Your task to perform on an android device: Go to wifi settings Image 0: 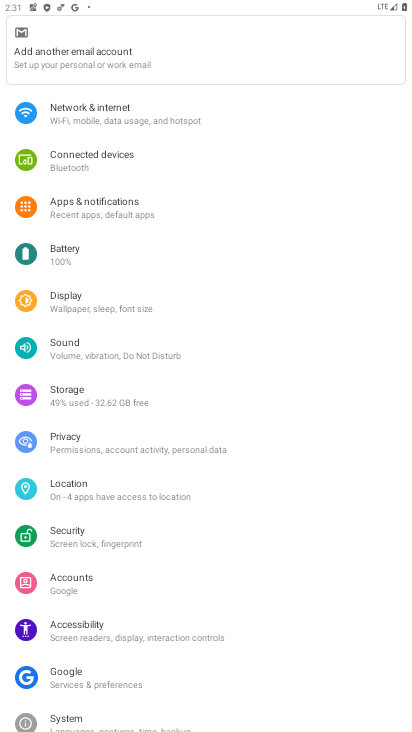
Step 0: press home button
Your task to perform on an android device: Go to wifi settings Image 1: 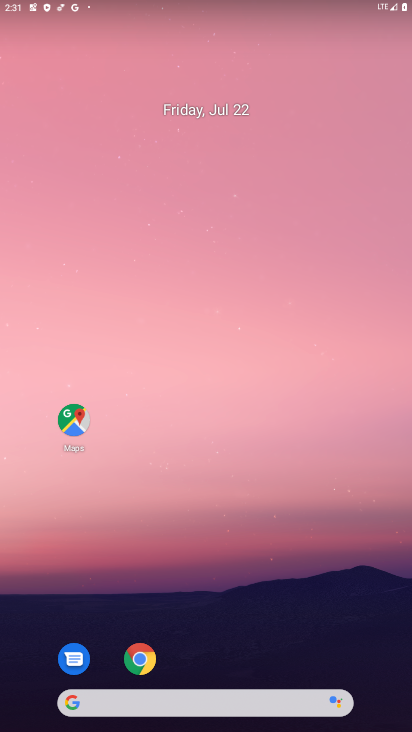
Step 1: drag from (199, 638) to (135, 0)
Your task to perform on an android device: Go to wifi settings Image 2: 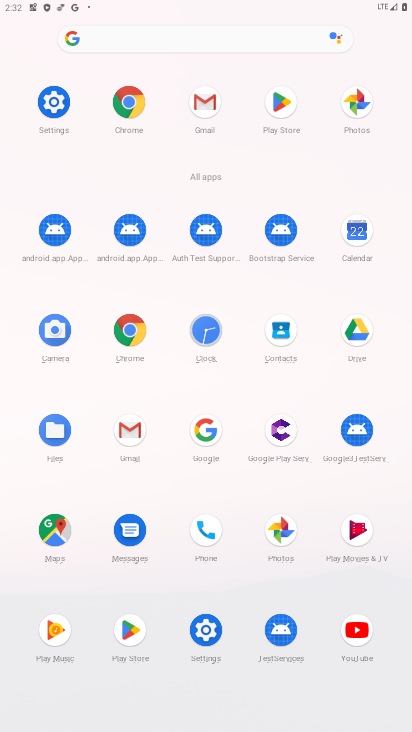
Step 2: click (54, 99)
Your task to perform on an android device: Go to wifi settings Image 3: 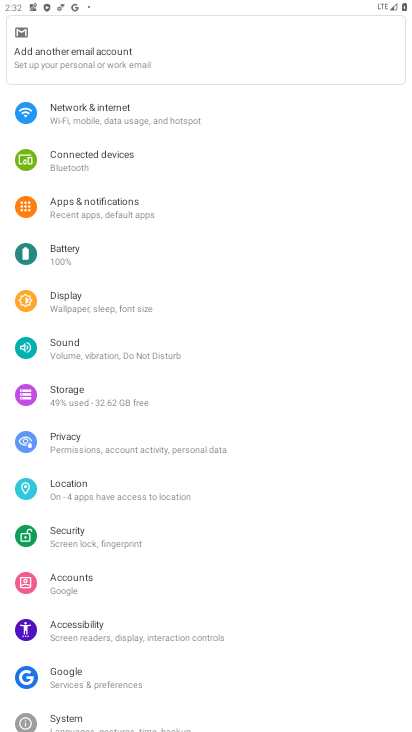
Step 3: click (54, 99)
Your task to perform on an android device: Go to wifi settings Image 4: 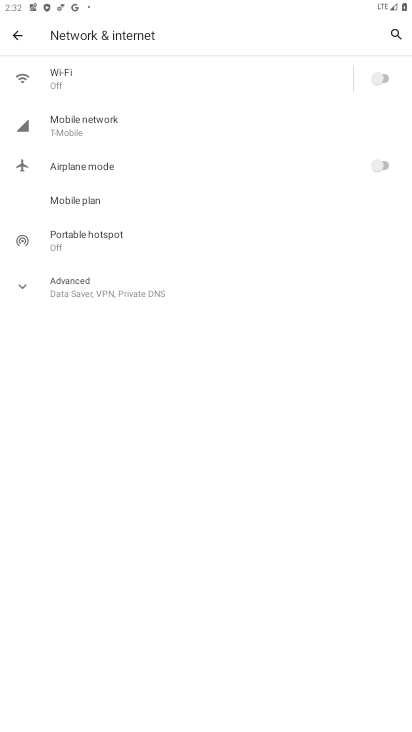
Step 4: task complete